Your task to perform on an android device: toggle sleep mode Image 0: 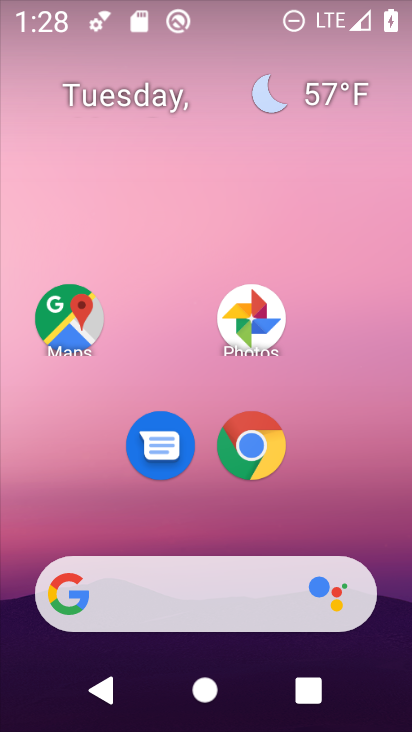
Step 0: drag from (364, 535) to (359, 209)
Your task to perform on an android device: toggle sleep mode Image 1: 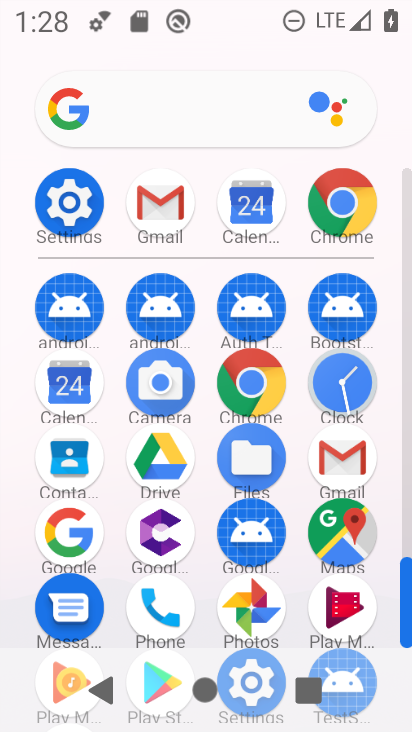
Step 1: drag from (382, 517) to (384, 288)
Your task to perform on an android device: toggle sleep mode Image 2: 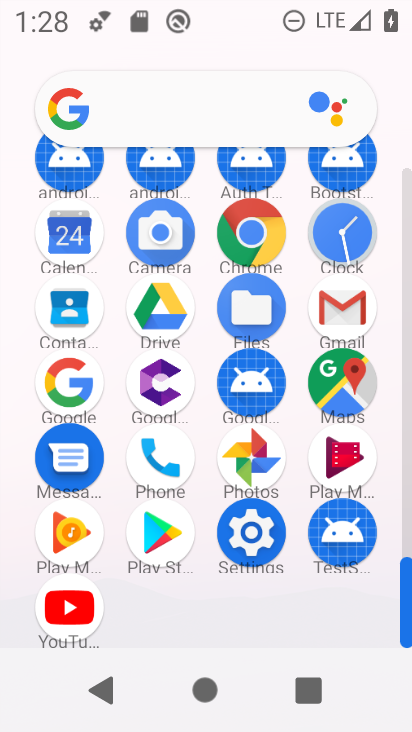
Step 2: click (260, 537)
Your task to perform on an android device: toggle sleep mode Image 3: 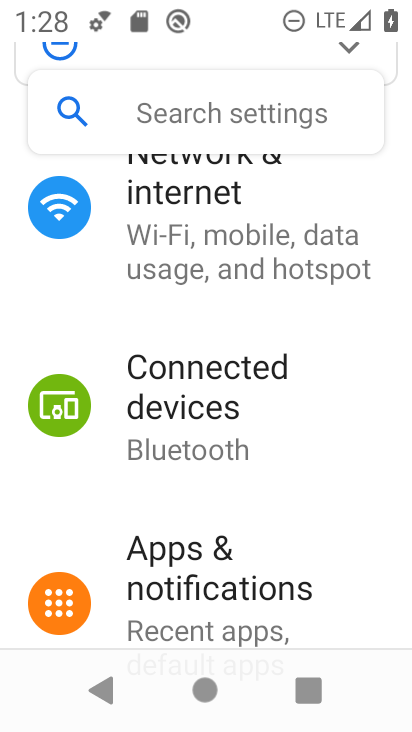
Step 3: drag from (322, 534) to (344, 397)
Your task to perform on an android device: toggle sleep mode Image 4: 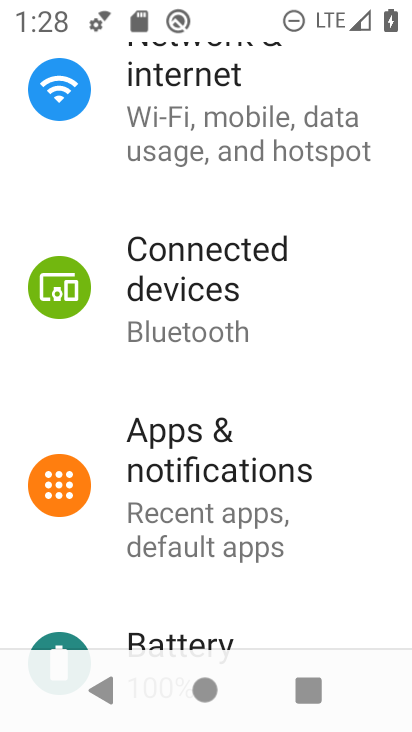
Step 4: drag from (381, 589) to (387, 464)
Your task to perform on an android device: toggle sleep mode Image 5: 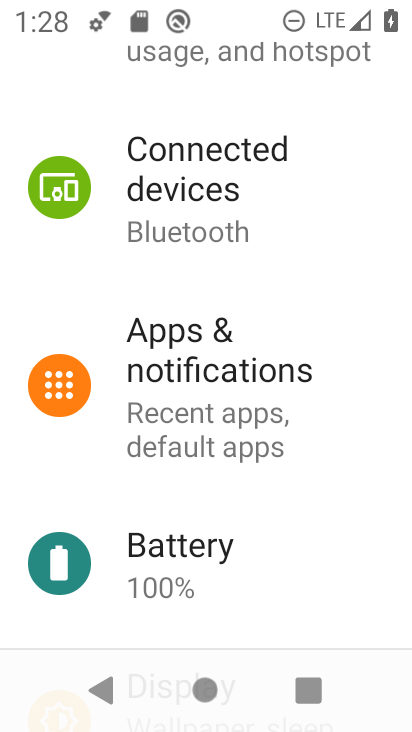
Step 5: drag from (334, 592) to (336, 452)
Your task to perform on an android device: toggle sleep mode Image 6: 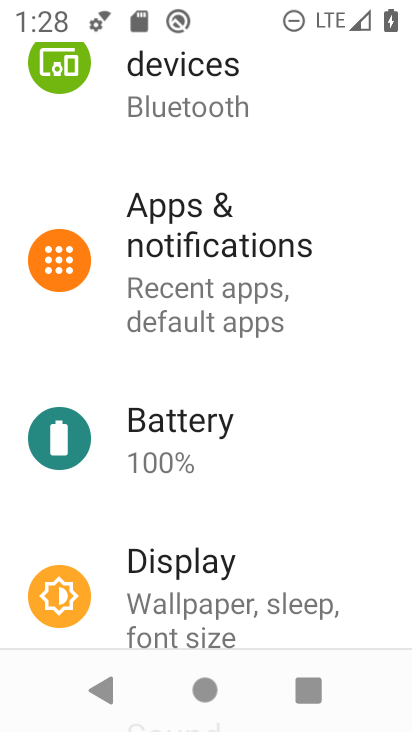
Step 6: drag from (367, 613) to (375, 428)
Your task to perform on an android device: toggle sleep mode Image 7: 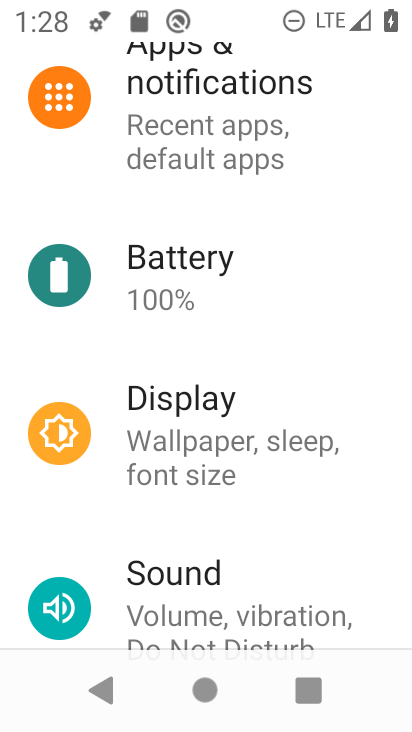
Step 7: click (256, 447)
Your task to perform on an android device: toggle sleep mode Image 8: 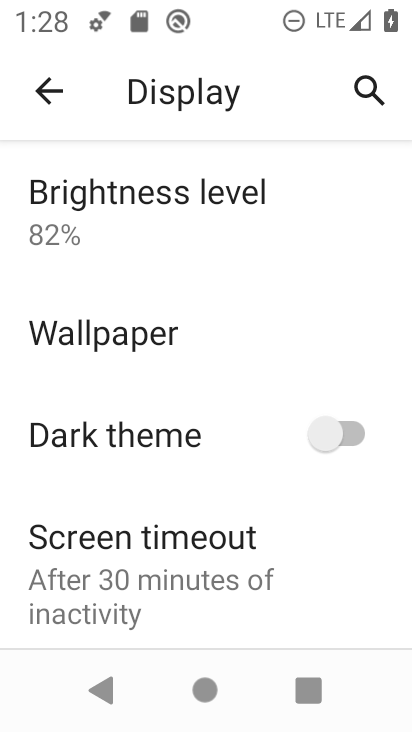
Step 8: drag from (309, 574) to (298, 425)
Your task to perform on an android device: toggle sleep mode Image 9: 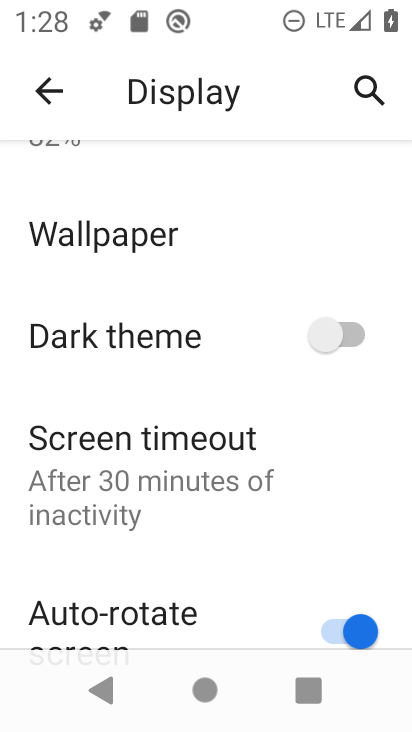
Step 9: drag from (275, 582) to (295, 409)
Your task to perform on an android device: toggle sleep mode Image 10: 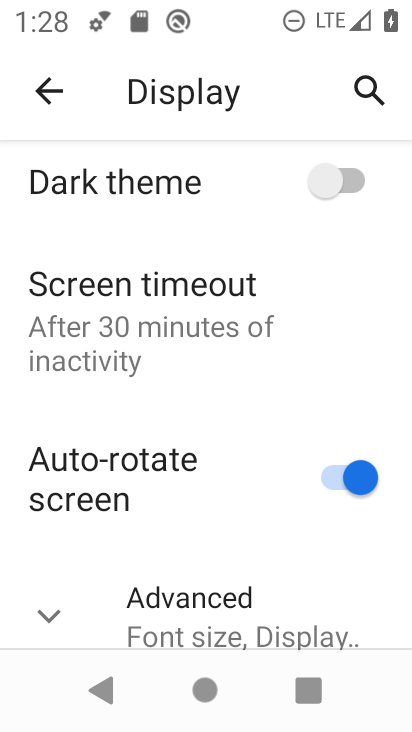
Step 10: drag from (269, 575) to (256, 407)
Your task to perform on an android device: toggle sleep mode Image 11: 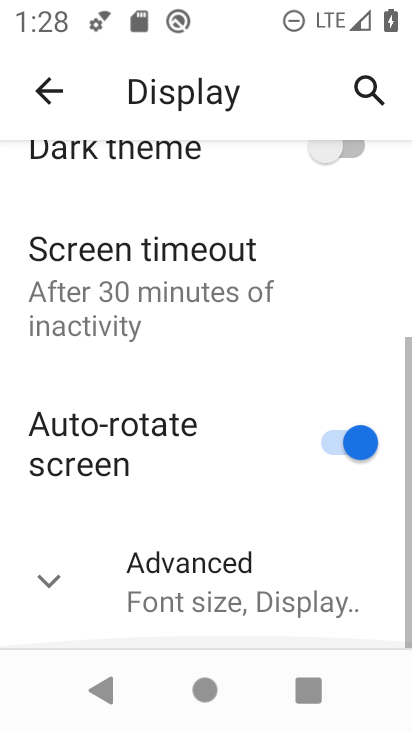
Step 11: click (215, 569)
Your task to perform on an android device: toggle sleep mode Image 12: 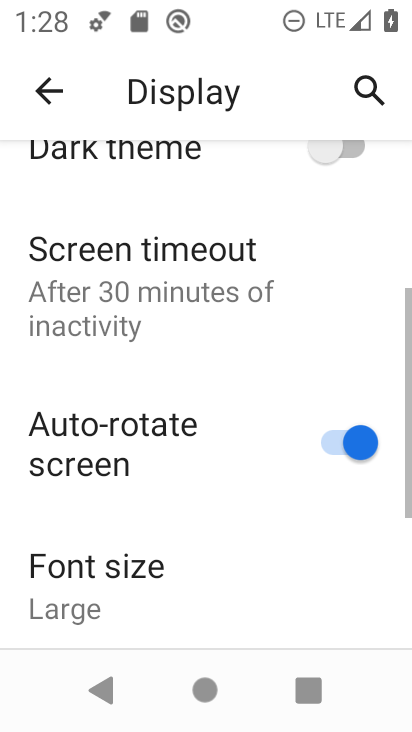
Step 12: task complete